Your task to perform on an android device: turn pop-ups on in chrome Image 0: 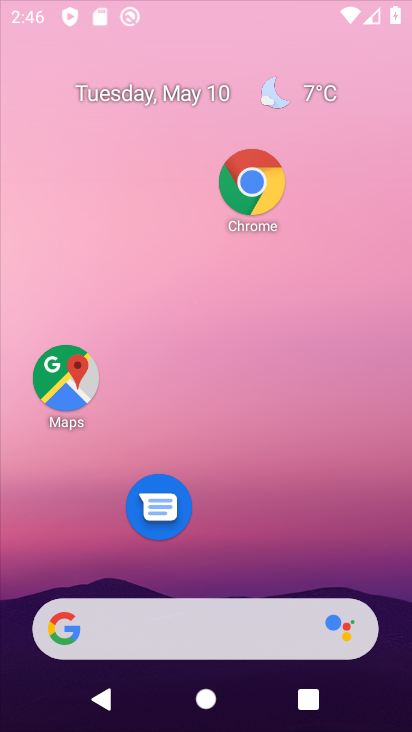
Step 0: drag from (331, 533) to (225, 173)
Your task to perform on an android device: turn pop-ups on in chrome Image 1: 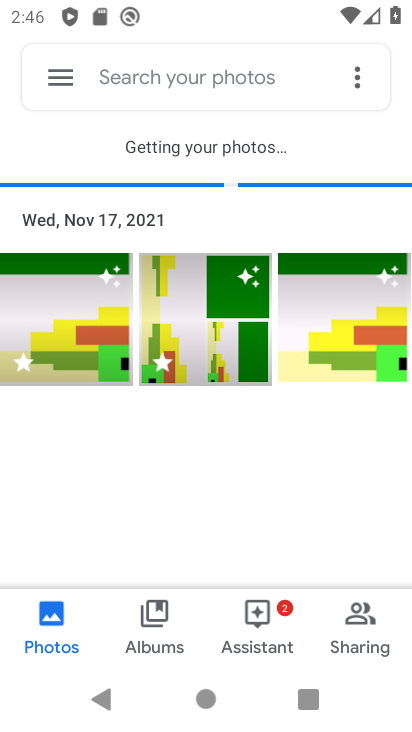
Step 1: press home button
Your task to perform on an android device: turn pop-ups on in chrome Image 2: 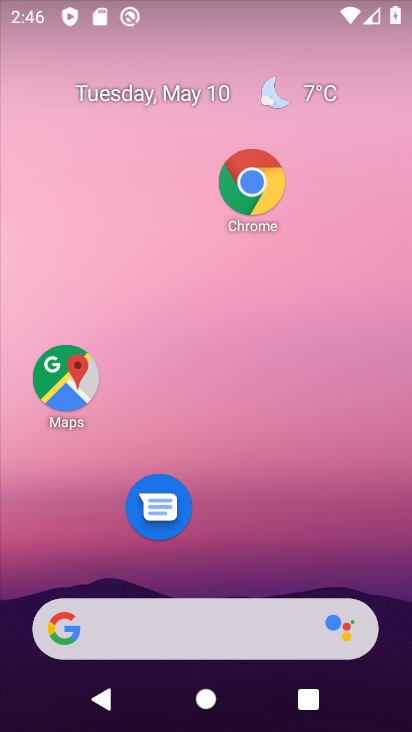
Step 2: drag from (262, 545) to (159, 18)
Your task to perform on an android device: turn pop-ups on in chrome Image 3: 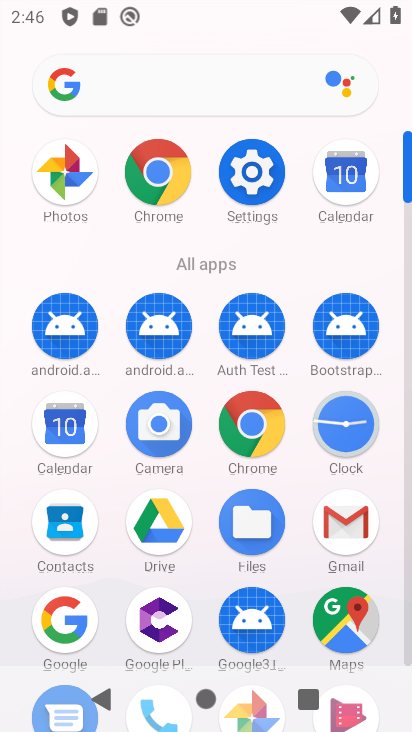
Step 3: click (167, 178)
Your task to perform on an android device: turn pop-ups on in chrome Image 4: 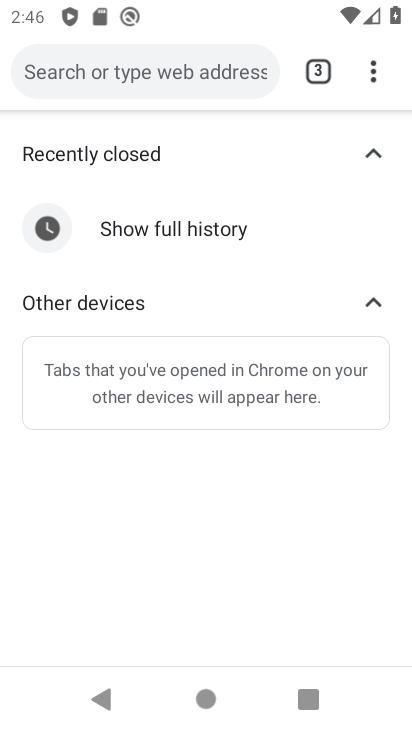
Step 4: click (370, 71)
Your task to perform on an android device: turn pop-ups on in chrome Image 5: 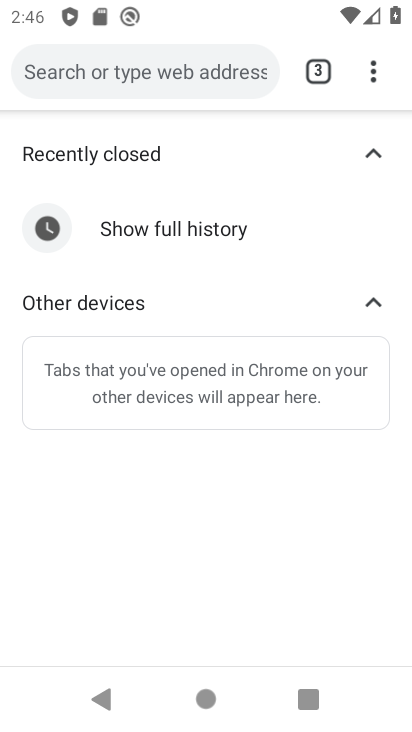
Step 5: click (370, 89)
Your task to perform on an android device: turn pop-ups on in chrome Image 6: 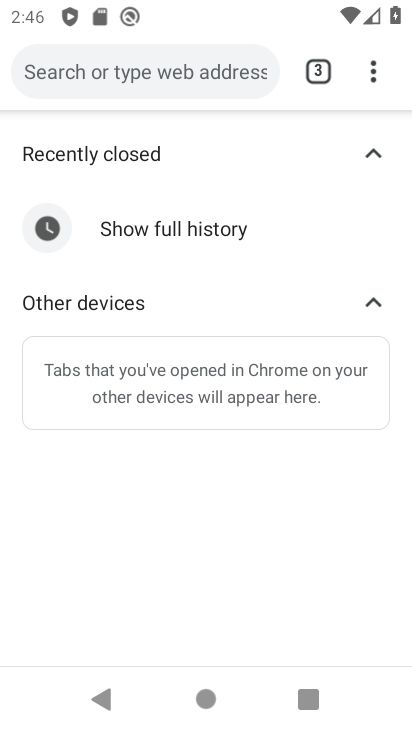
Step 6: click (377, 71)
Your task to perform on an android device: turn pop-ups on in chrome Image 7: 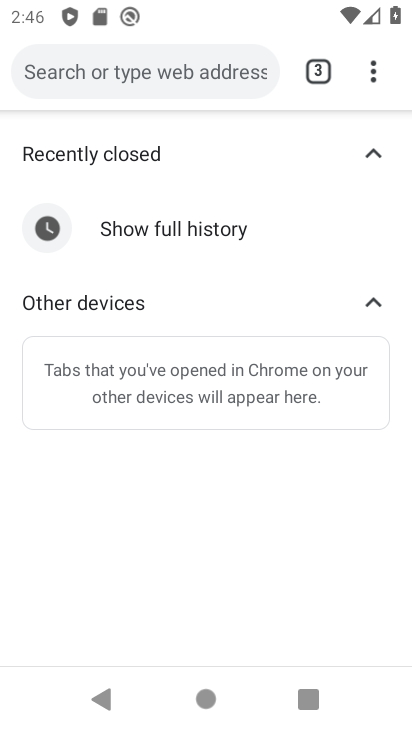
Step 7: click (378, 65)
Your task to perform on an android device: turn pop-ups on in chrome Image 8: 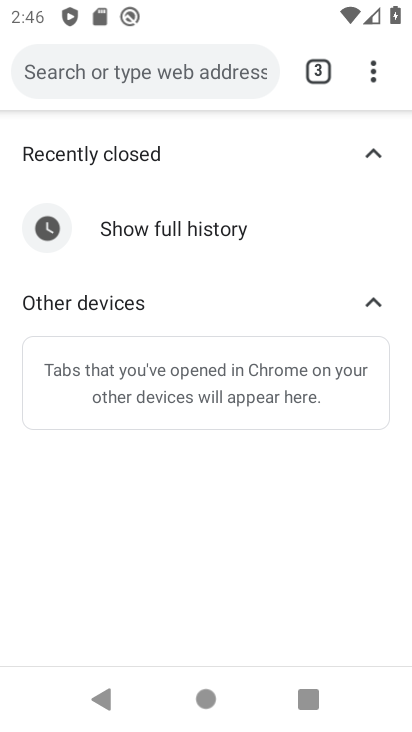
Step 8: click (369, 76)
Your task to perform on an android device: turn pop-ups on in chrome Image 9: 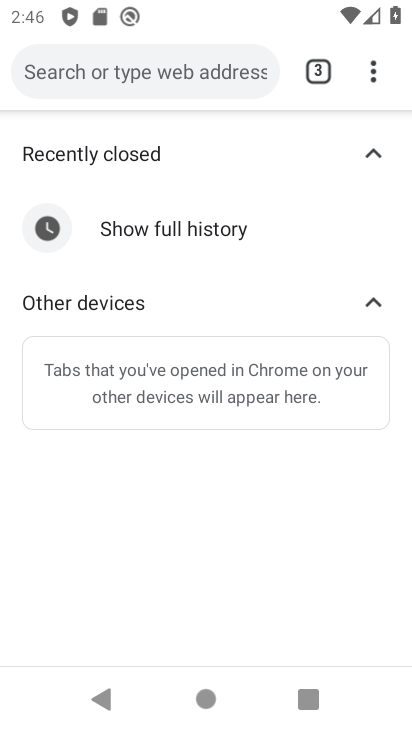
Step 9: click (368, 79)
Your task to perform on an android device: turn pop-ups on in chrome Image 10: 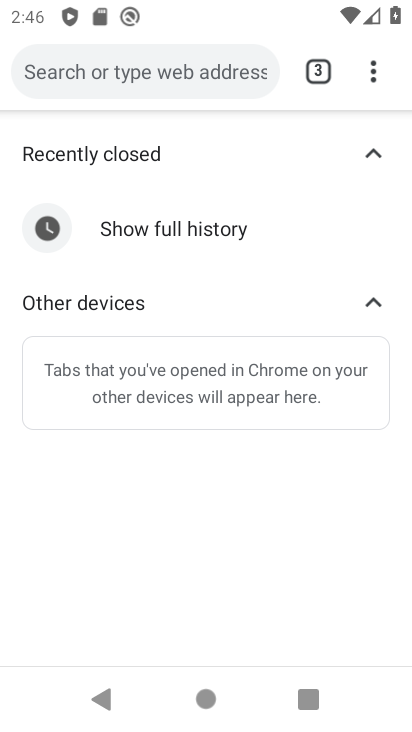
Step 10: click (368, 79)
Your task to perform on an android device: turn pop-ups on in chrome Image 11: 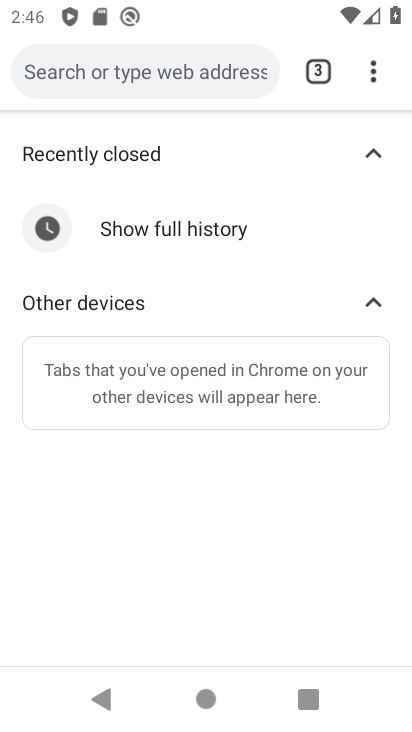
Step 11: click (368, 79)
Your task to perform on an android device: turn pop-ups on in chrome Image 12: 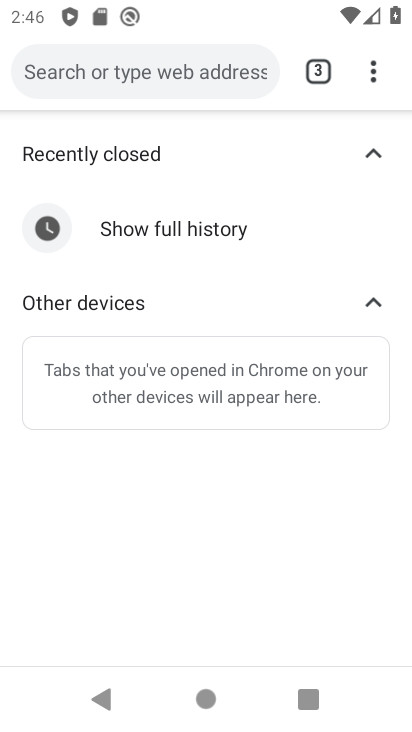
Step 12: click (368, 79)
Your task to perform on an android device: turn pop-ups on in chrome Image 13: 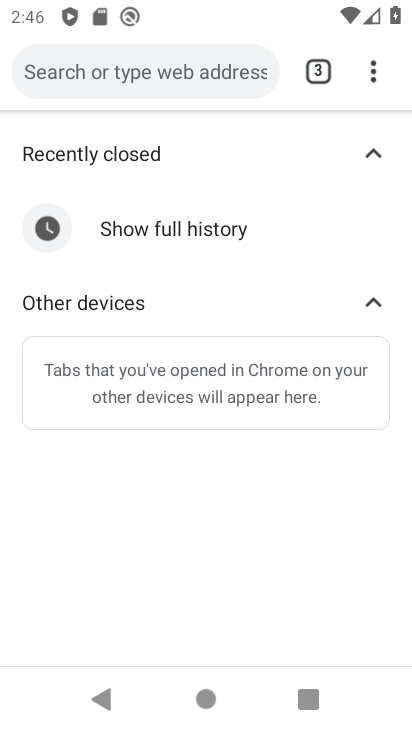
Step 13: click (381, 73)
Your task to perform on an android device: turn pop-ups on in chrome Image 14: 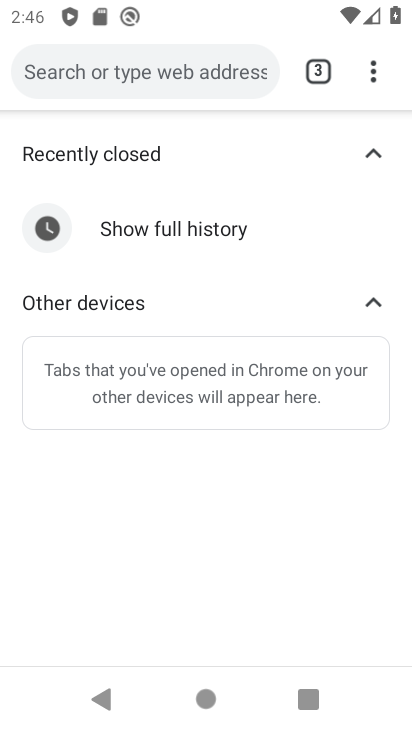
Step 14: click (381, 73)
Your task to perform on an android device: turn pop-ups on in chrome Image 15: 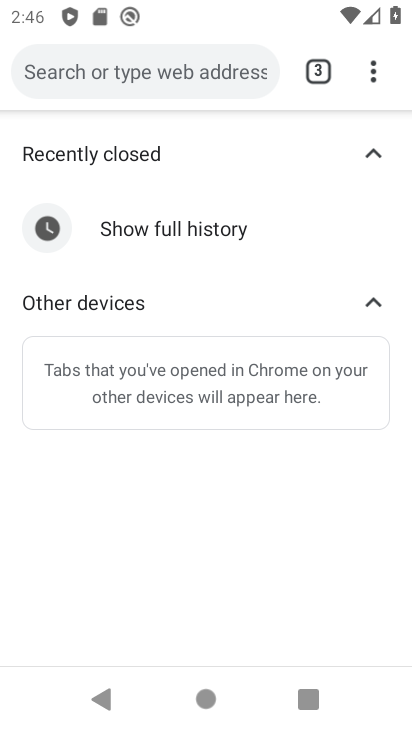
Step 15: click (381, 73)
Your task to perform on an android device: turn pop-ups on in chrome Image 16: 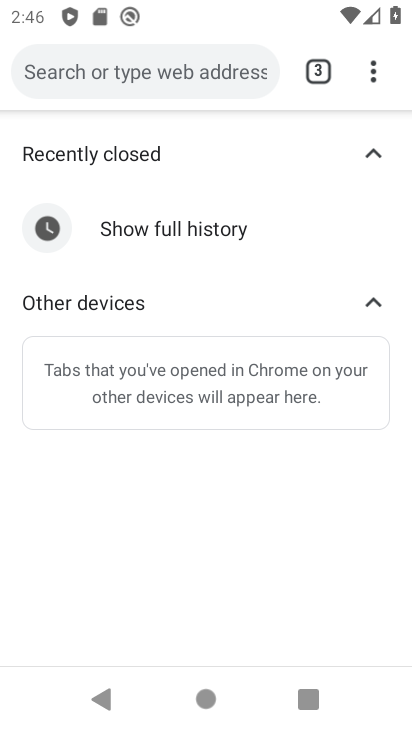
Step 16: click (381, 73)
Your task to perform on an android device: turn pop-ups on in chrome Image 17: 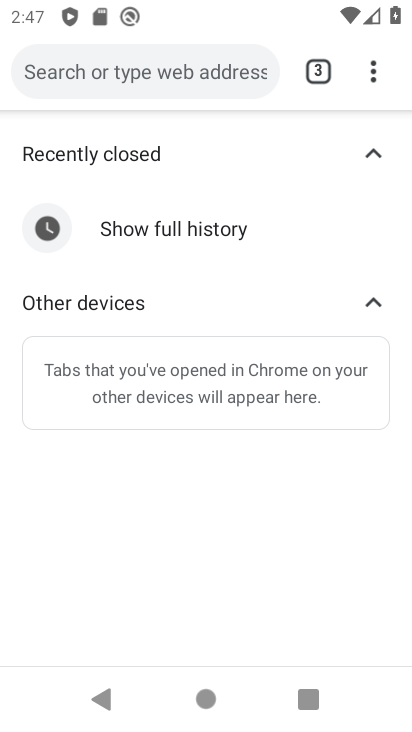
Step 17: task complete